Your task to perform on an android device: turn off data saver in the chrome app Image 0: 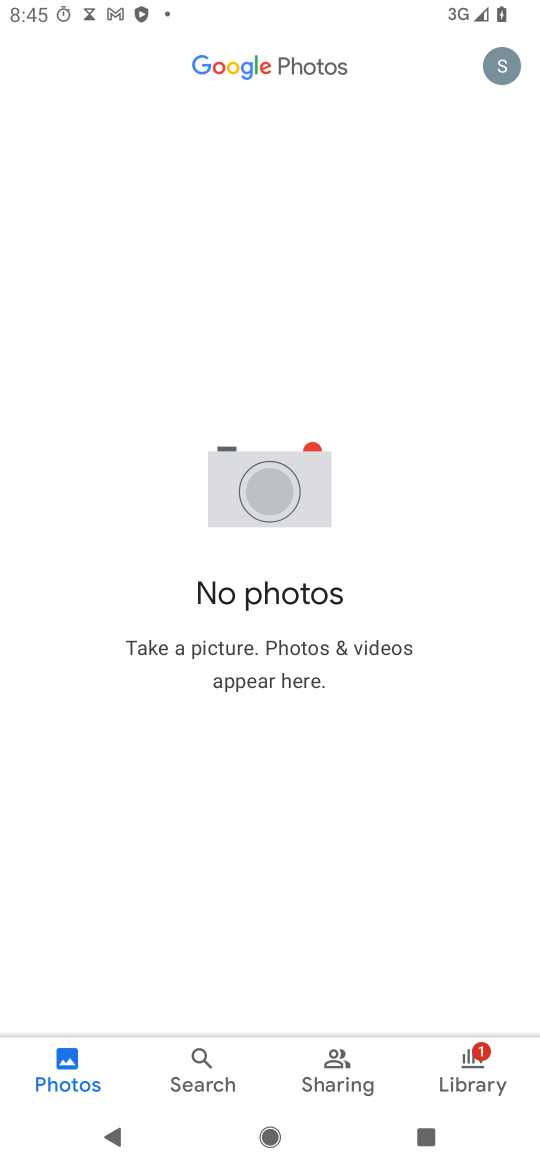
Step 0: press home button
Your task to perform on an android device: turn off data saver in the chrome app Image 1: 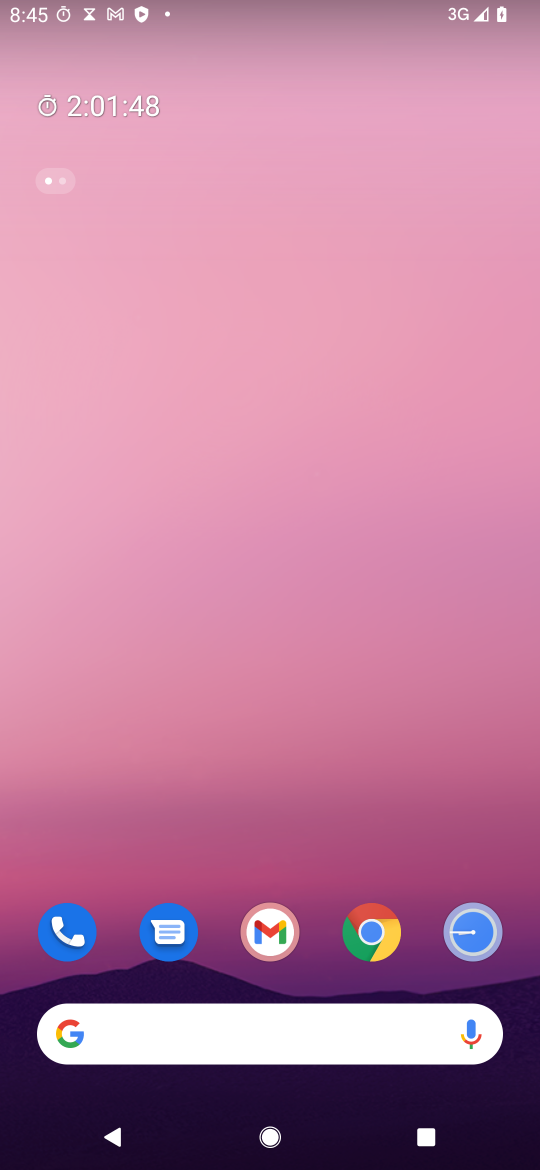
Step 1: drag from (386, 868) to (425, 111)
Your task to perform on an android device: turn off data saver in the chrome app Image 2: 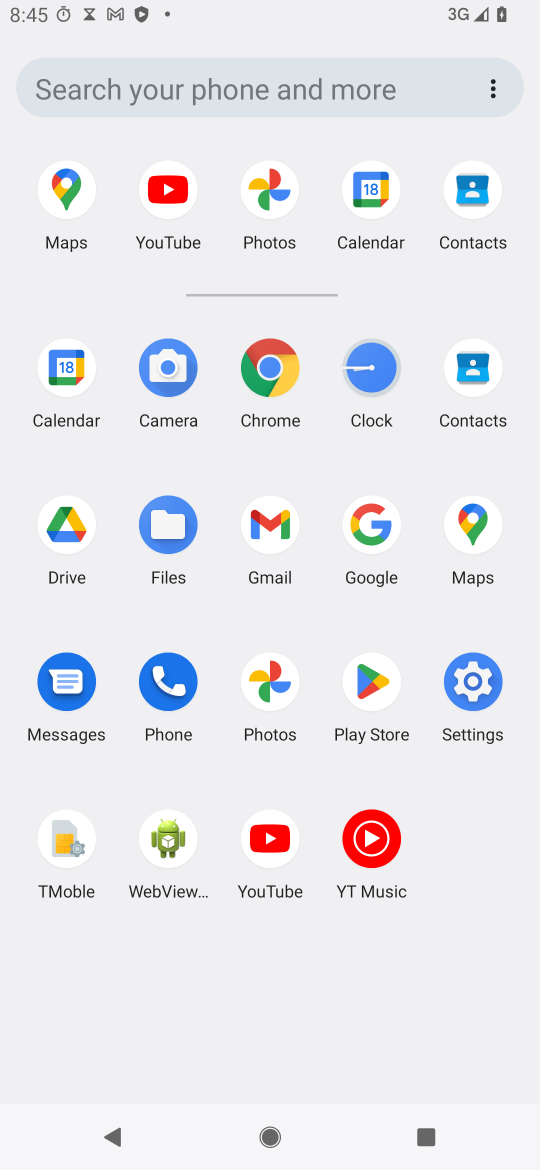
Step 2: click (270, 367)
Your task to perform on an android device: turn off data saver in the chrome app Image 3: 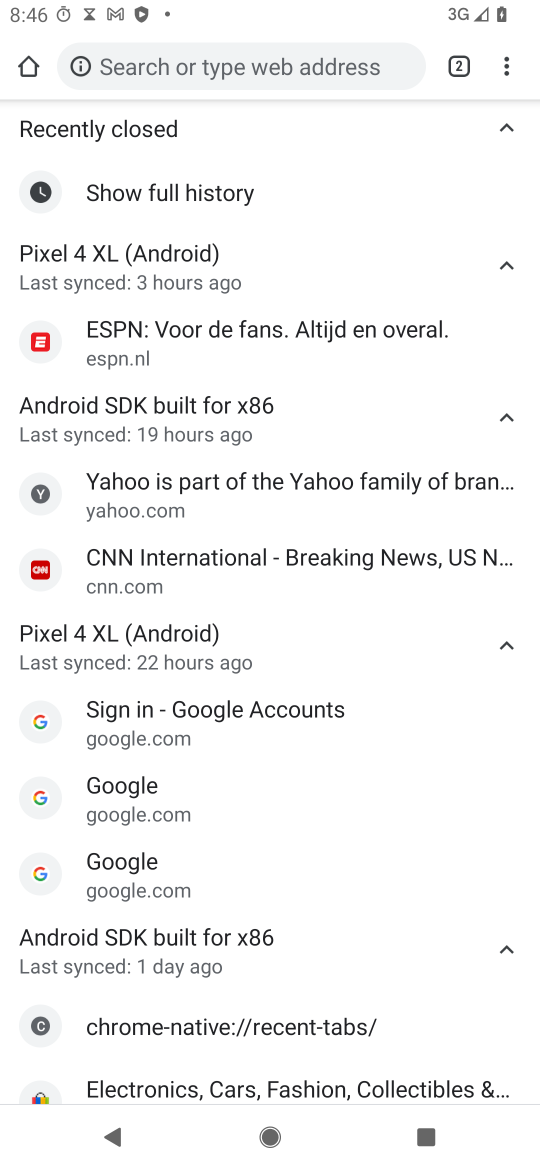
Step 3: drag from (505, 58) to (316, 638)
Your task to perform on an android device: turn off data saver in the chrome app Image 4: 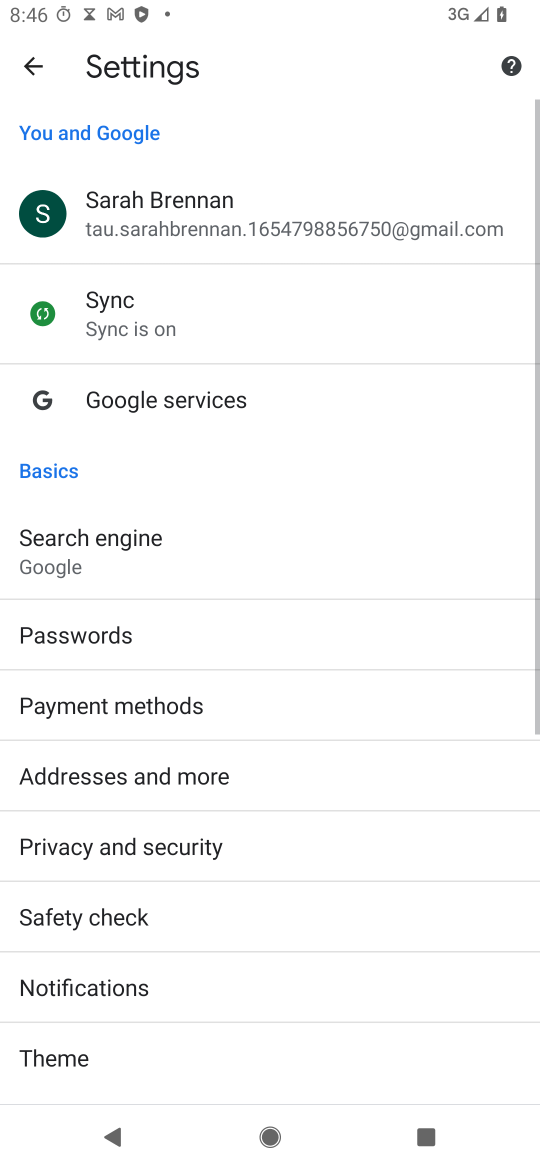
Step 4: drag from (293, 920) to (287, 103)
Your task to perform on an android device: turn off data saver in the chrome app Image 5: 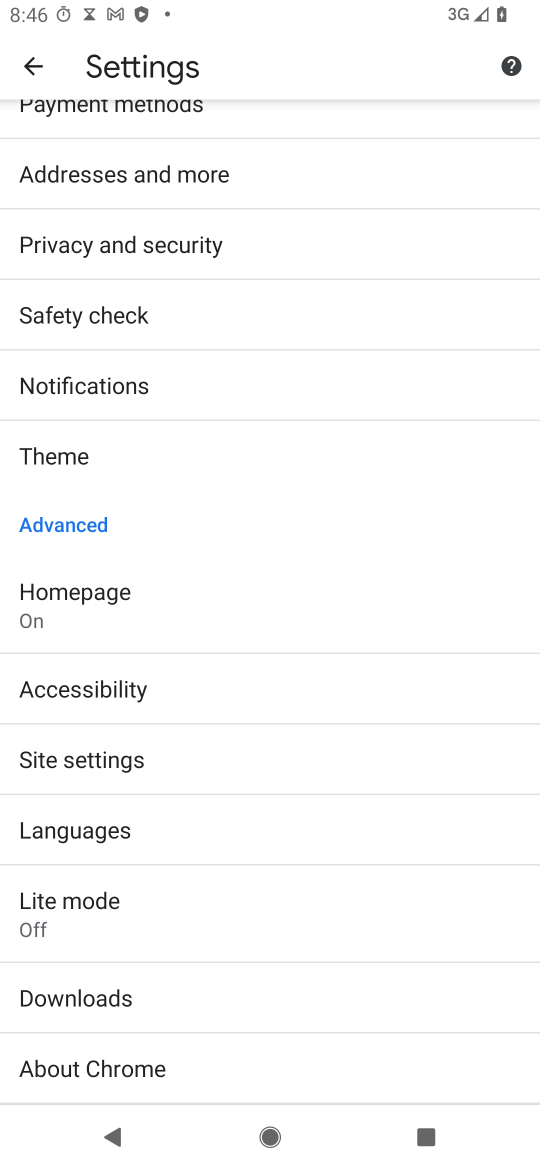
Step 5: click (64, 907)
Your task to perform on an android device: turn off data saver in the chrome app Image 6: 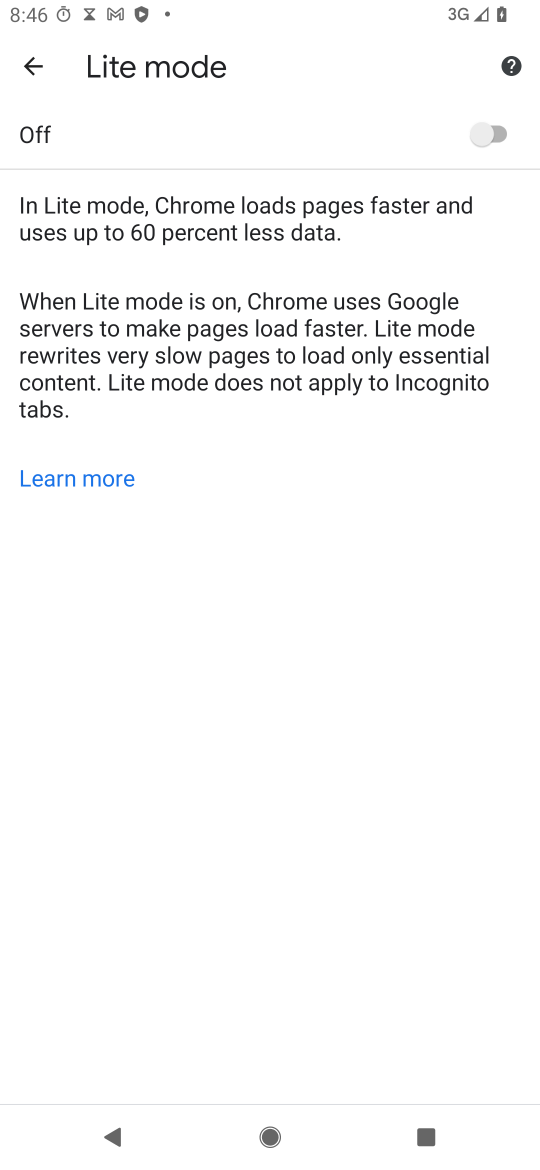
Step 6: task complete